Your task to perform on an android device: open a bookmark in the chrome app Image 0: 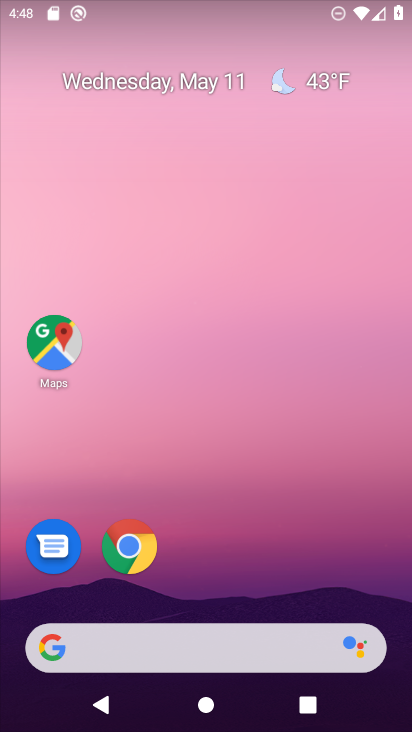
Step 0: drag from (189, 625) to (196, 339)
Your task to perform on an android device: open a bookmark in the chrome app Image 1: 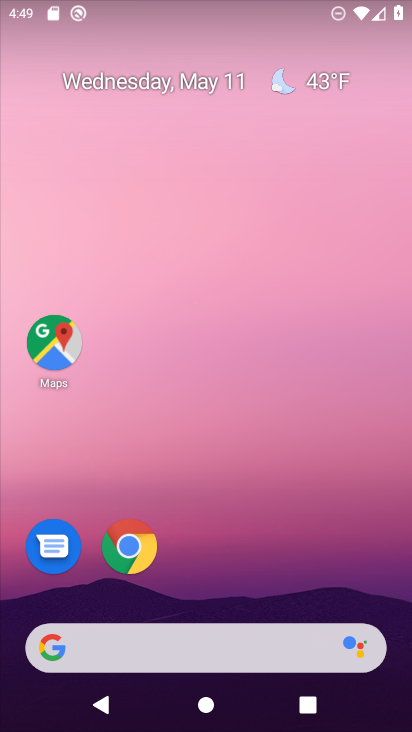
Step 1: click (121, 543)
Your task to perform on an android device: open a bookmark in the chrome app Image 2: 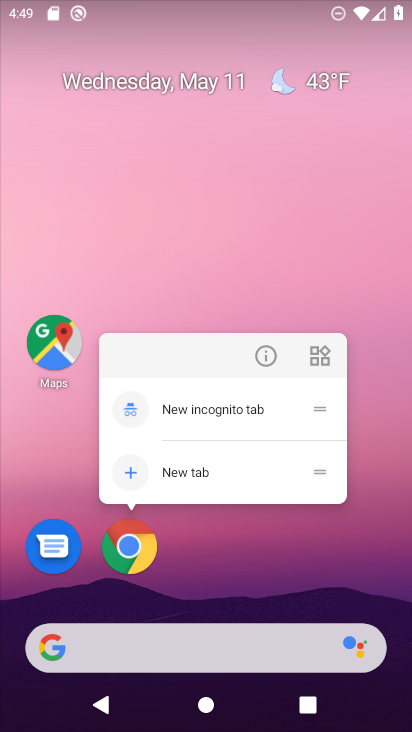
Step 2: click (141, 550)
Your task to perform on an android device: open a bookmark in the chrome app Image 3: 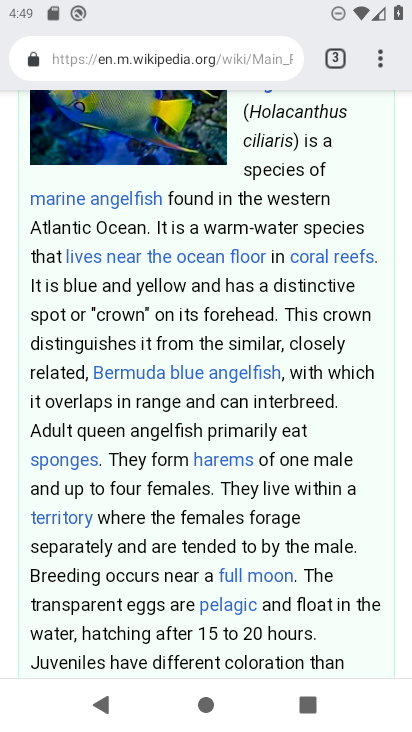
Step 3: click (380, 58)
Your task to perform on an android device: open a bookmark in the chrome app Image 4: 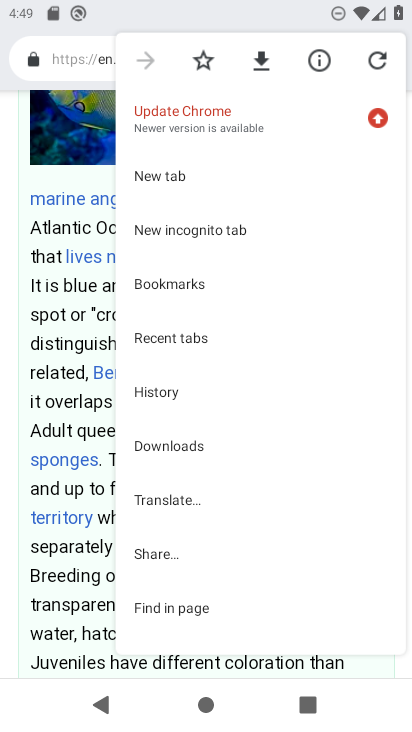
Step 4: click (172, 289)
Your task to perform on an android device: open a bookmark in the chrome app Image 5: 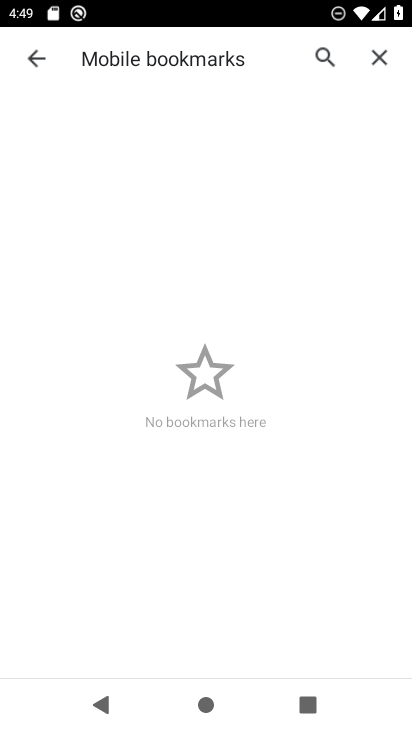
Step 5: task complete